Your task to perform on an android device: Do I have any events this weekend? Image 0: 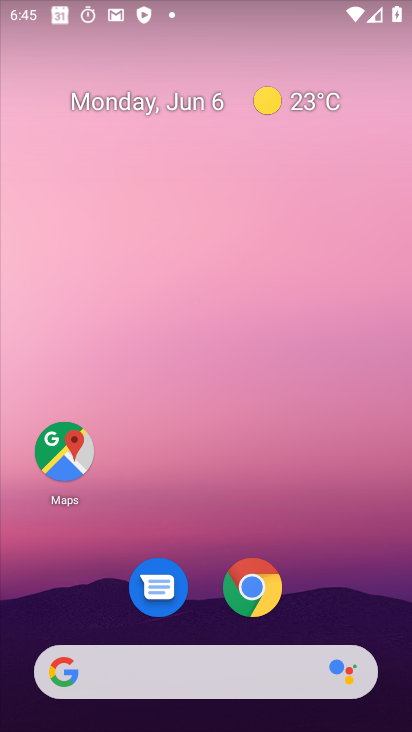
Step 0: drag from (386, 690) to (289, 92)
Your task to perform on an android device: Do I have any events this weekend? Image 1: 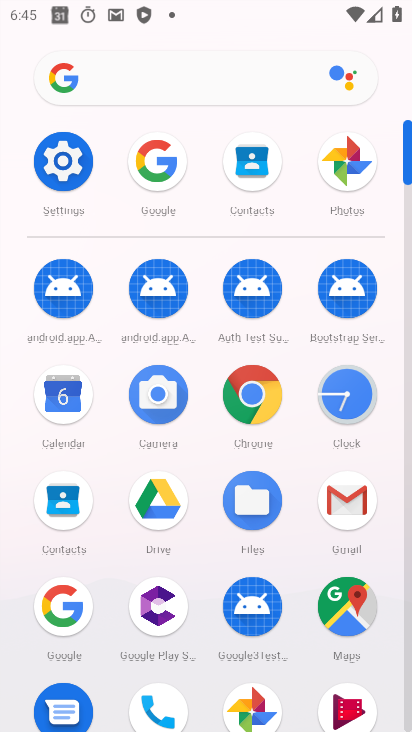
Step 1: click (53, 411)
Your task to perform on an android device: Do I have any events this weekend? Image 2: 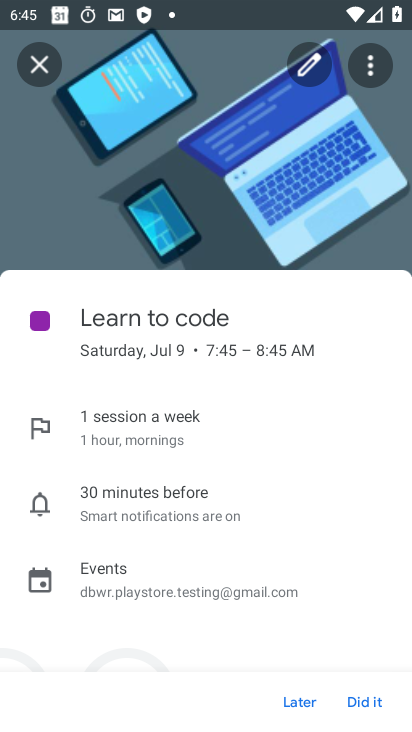
Step 2: task complete